Your task to perform on an android device: What's a good restaurant in Phoenix? Image 0: 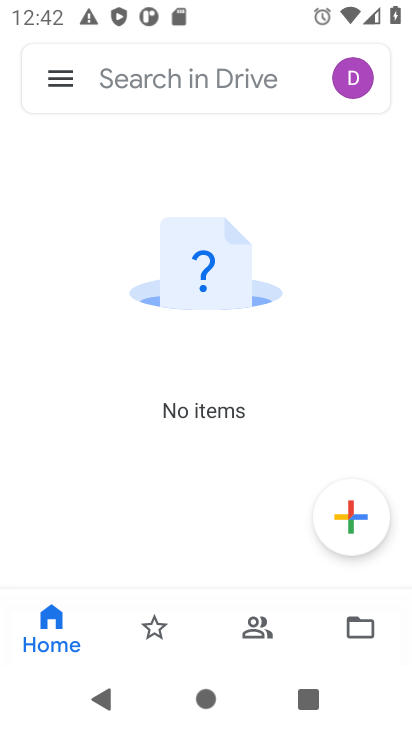
Step 0: press home button
Your task to perform on an android device: What's a good restaurant in Phoenix? Image 1: 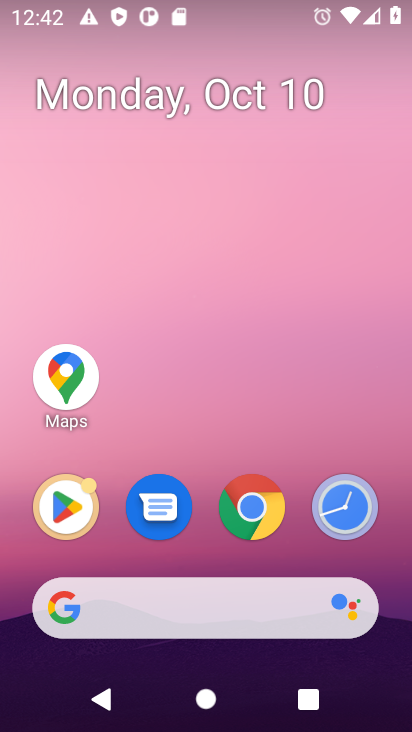
Step 1: click (249, 584)
Your task to perform on an android device: What's a good restaurant in Phoenix? Image 2: 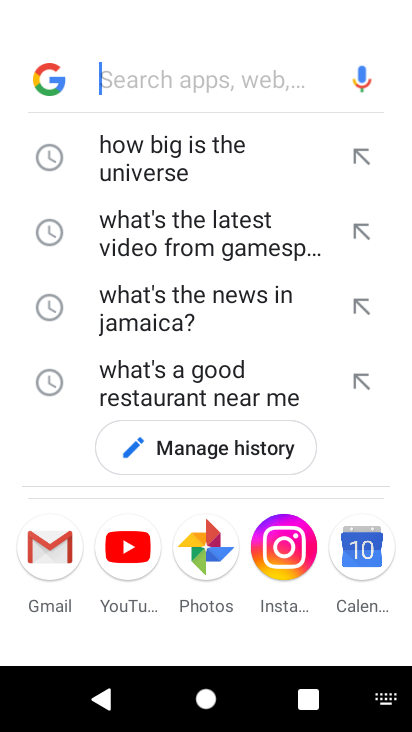
Step 2: type "What's a good restaurant in Phoenix?"
Your task to perform on an android device: What's a good restaurant in Phoenix? Image 3: 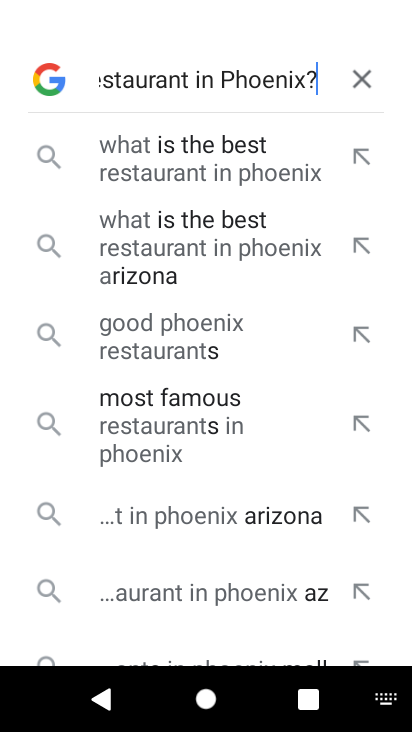
Step 3: press enter
Your task to perform on an android device: What's a good restaurant in Phoenix? Image 4: 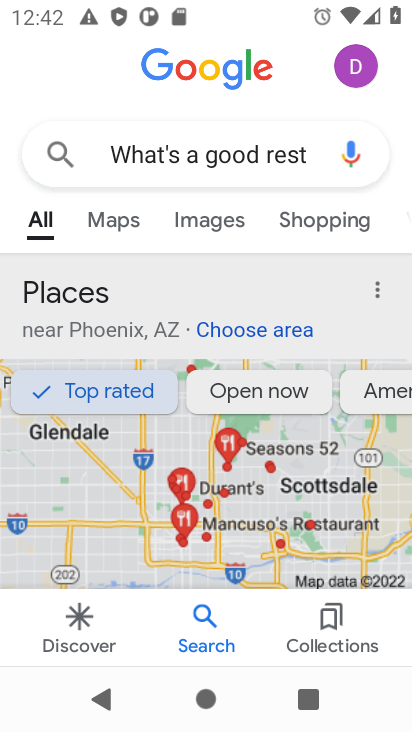
Step 4: task complete